Your task to perform on an android device: Set the phone to "Do not disturb". Image 0: 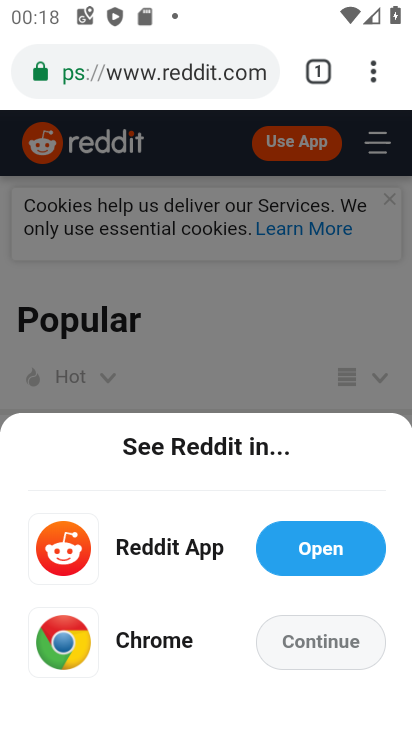
Step 0: press home button
Your task to perform on an android device: Set the phone to "Do not disturb". Image 1: 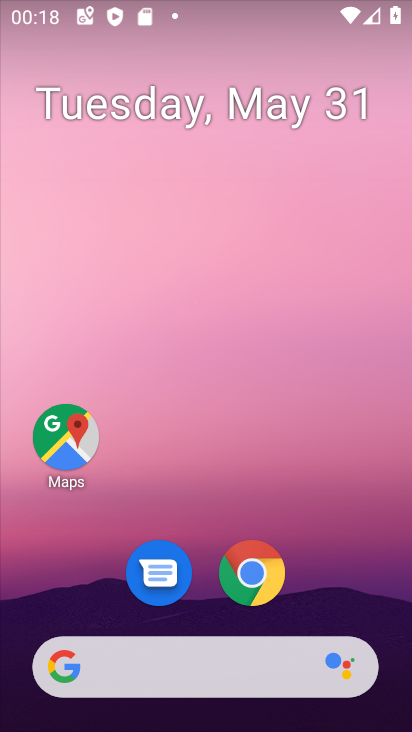
Step 1: drag from (257, 723) to (139, 12)
Your task to perform on an android device: Set the phone to "Do not disturb". Image 2: 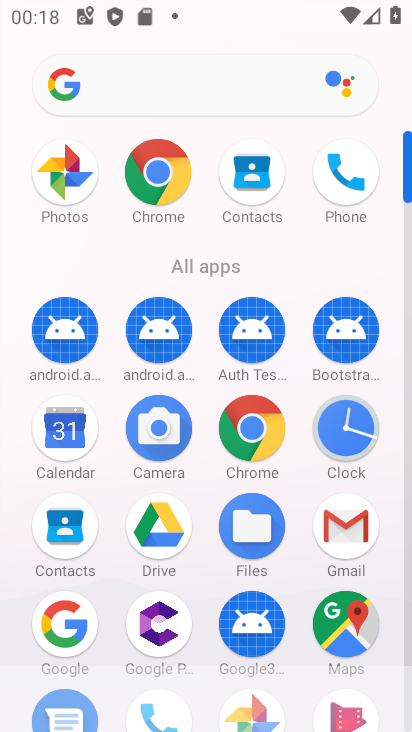
Step 2: drag from (217, 647) to (404, 490)
Your task to perform on an android device: Set the phone to "Do not disturb". Image 3: 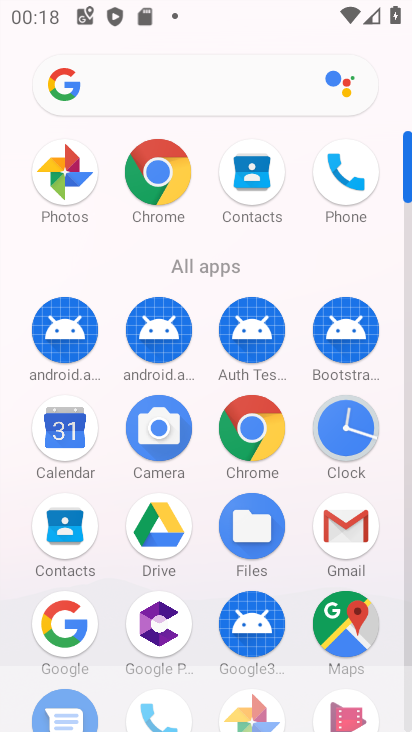
Step 3: drag from (260, 494) to (320, 31)
Your task to perform on an android device: Set the phone to "Do not disturb". Image 4: 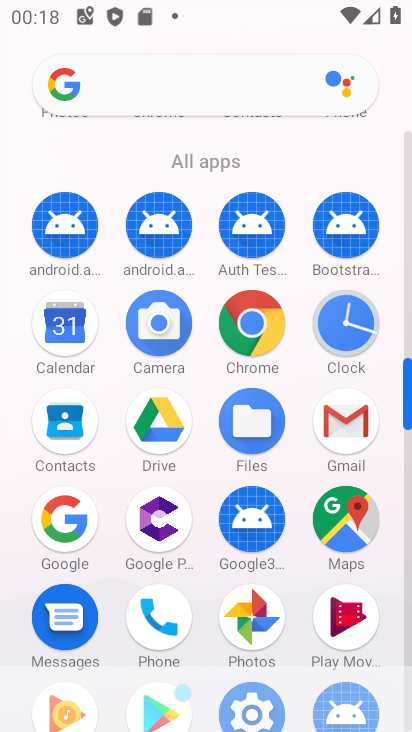
Step 4: drag from (278, 650) to (354, 61)
Your task to perform on an android device: Set the phone to "Do not disturb". Image 5: 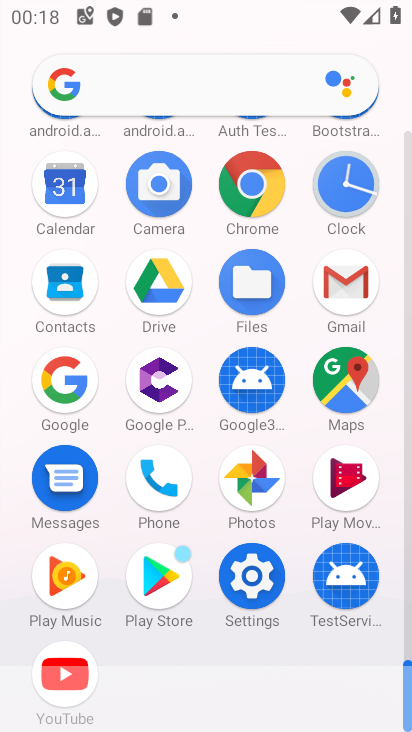
Step 5: click (270, 562)
Your task to perform on an android device: Set the phone to "Do not disturb". Image 6: 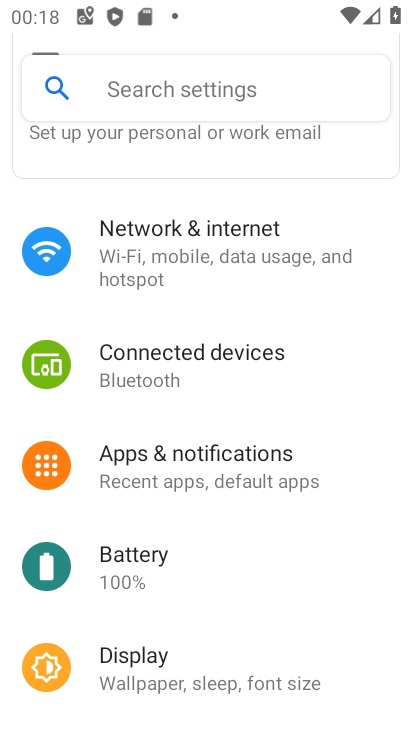
Step 6: drag from (205, 627) to (307, 43)
Your task to perform on an android device: Set the phone to "Do not disturb". Image 7: 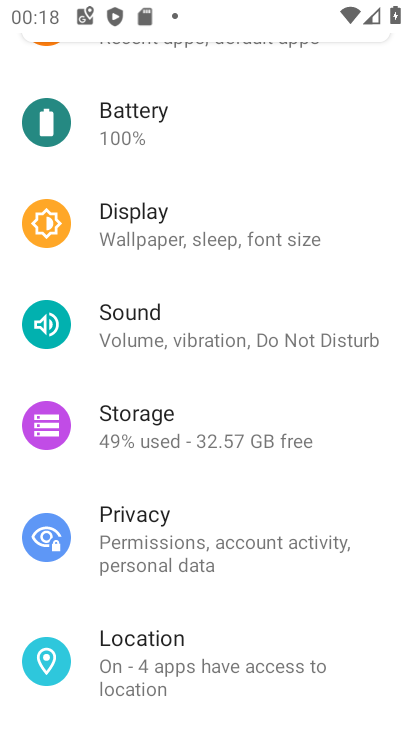
Step 7: click (320, 341)
Your task to perform on an android device: Set the phone to "Do not disturb". Image 8: 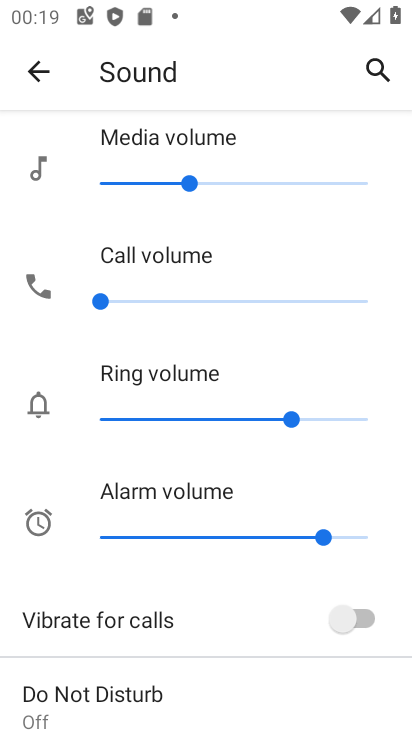
Step 8: click (125, 696)
Your task to perform on an android device: Set the phone to "Do not disturb". Image 9: 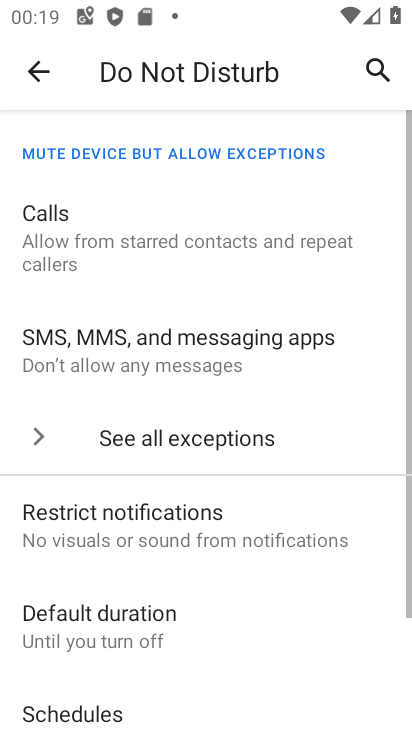
Step 9: drag from (251, 585) to (318, 7)
Your task to perform on an android device: Set the phone to "Do not disturb". Image 10: 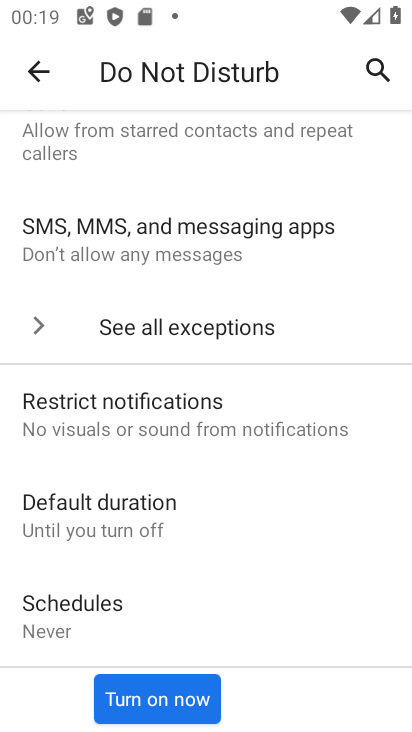
Step 10: click (196, 701)
Your task to perform on an android device: Set the phone to "Do not disturb". Image 11: 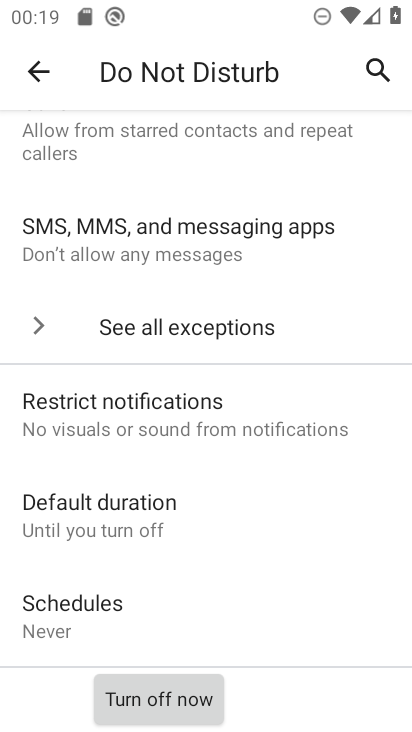
Step 11: task complete